Your task to perform on an android device: toggle show notifications on the lock screen Image 0: 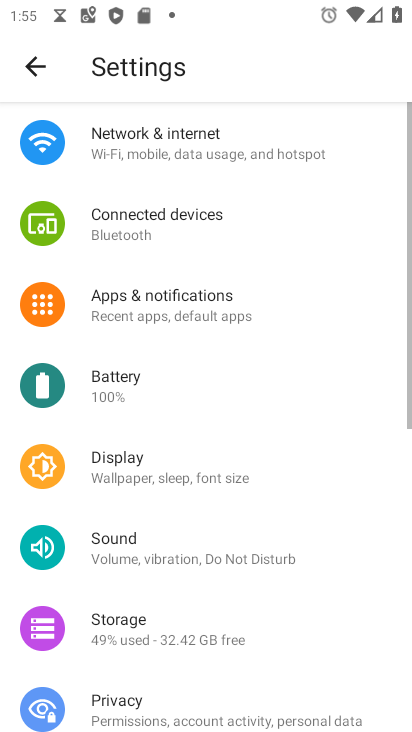
Step 0: press home button
Your task to perform on an android device: toggle show notifications on the lock screen Image 1: 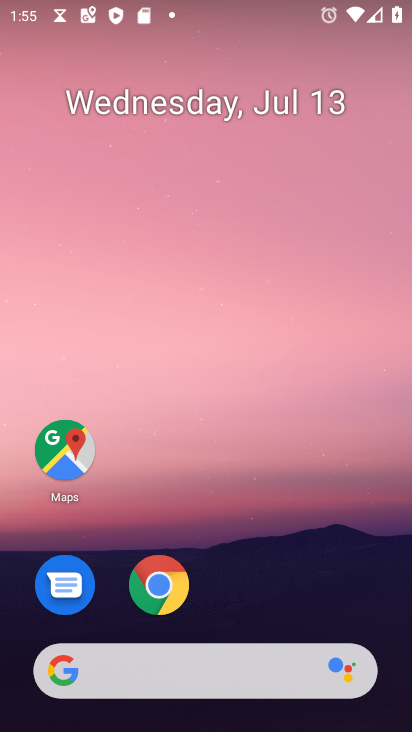
Step 1: drag from (184, 675) to (293, 127)
Your task to perform on an android device: toggle show notifications on the lock screen Image 2: 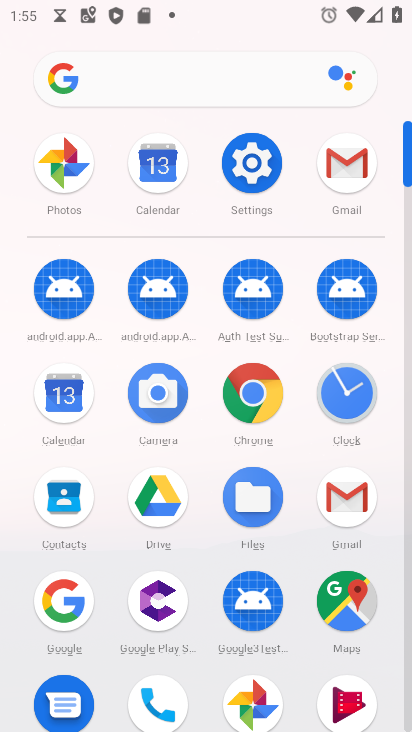
Step 2: click (258, 168)
Your task to perform on an android device: toggle show notifications on the lock screen Image 3: 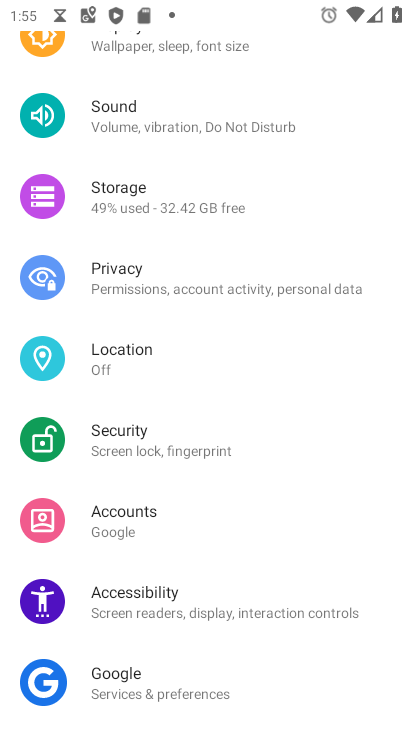
Step 3: drag from (327, 166) to (260, 641)
Your task to perform on an android device: toggle show notifications on the lock screen Image 4: 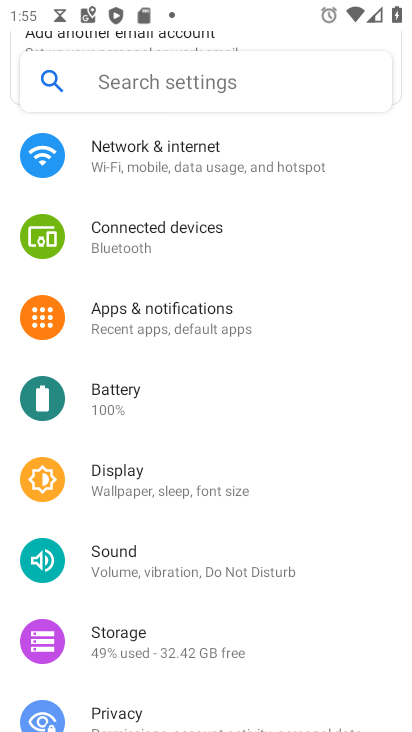
Step 4: click (203, 325)
Your task to perform on an android device: toggle show notifications on the lock screen Image 5: 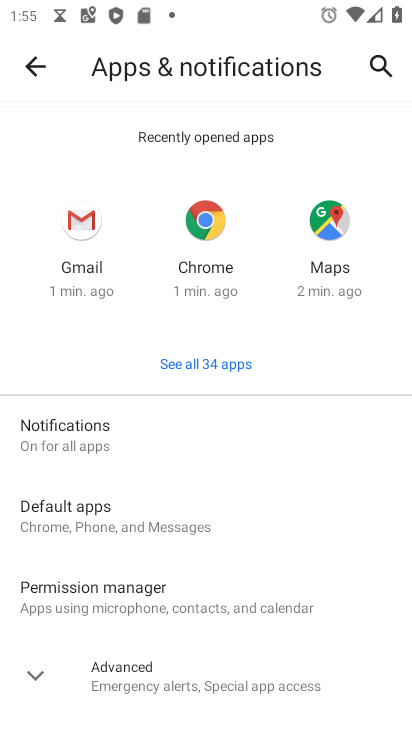
Step 5: click (108, 427)
Your task to perform on an android device: toggle show notifications on the lock screen Image 6: 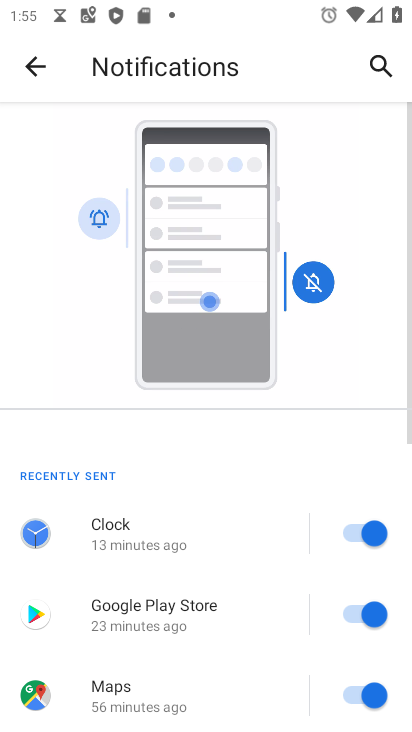
Step 6: drag from (201, 642) to (340, 99)
Your task to perform on an android device: toggle show notifications on the lock screen Image 7: 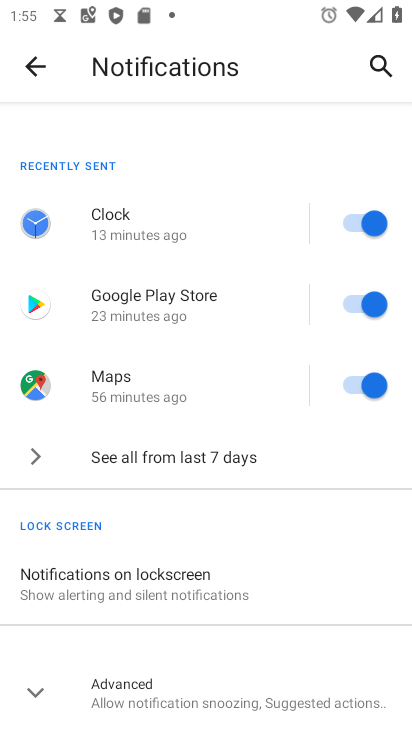
Step 7: click (177, 572)
Your task to perform on an android device: toggle show notifications on the lock screen Image 8: 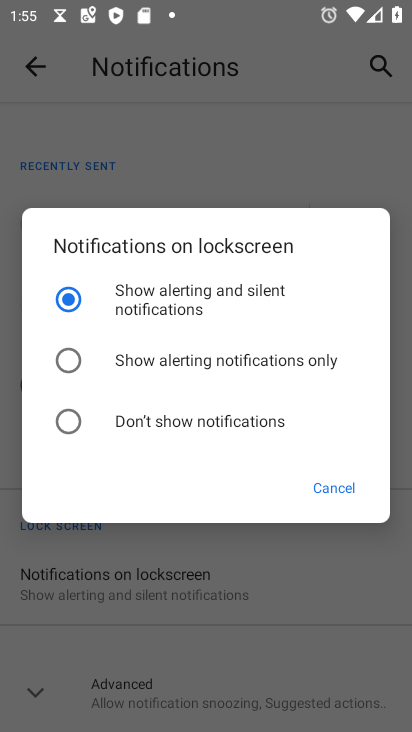
Step 8: click (70, 432)
Your task to perform on an android device: toggle show notifications on the lock screen Image 9: 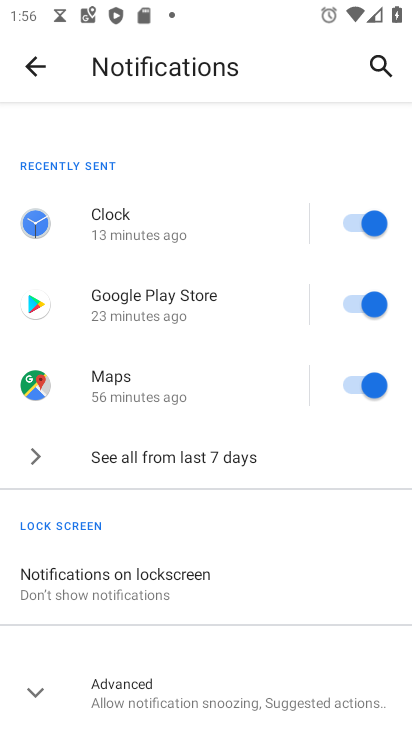
Step 9: task complete